Your task to perform on an android device: turn on data saver in the chrome app Image 0: 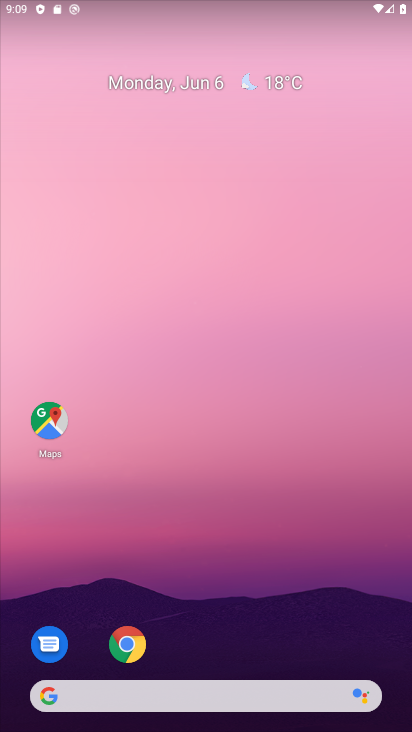
Step 0: click (285, 99)
Your task to perform on an android device: turn on data saver in the chrome app Image 1: 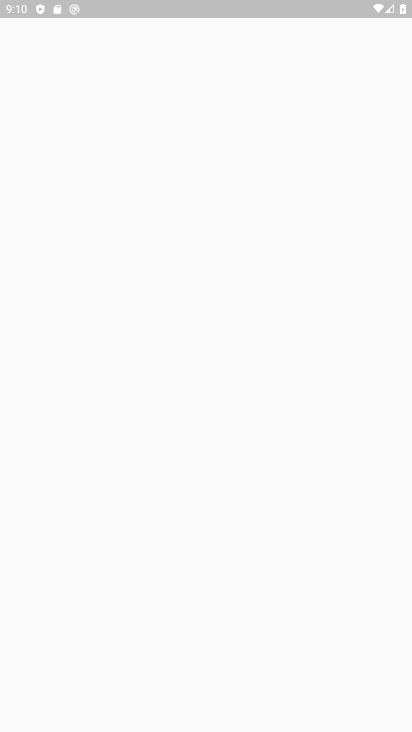
Step 1: press home button
Your task to perform on an android device: turn on data saver in the chrome app Image 2: 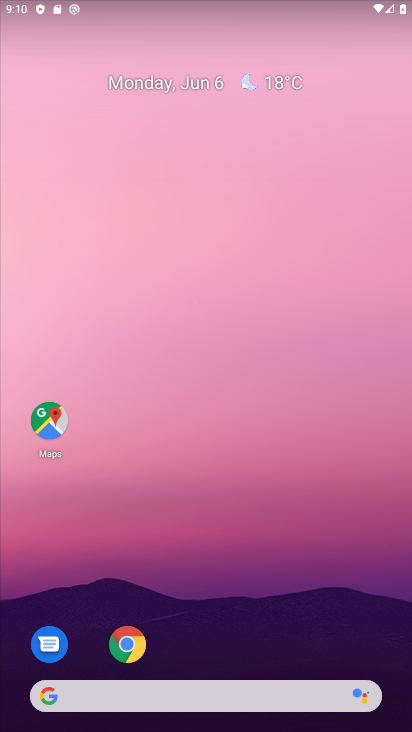
Step 2: drag from (328, 576) to (282, 199)
Your task to perform on an android device: turn on data saver in the chrome app Image 3: 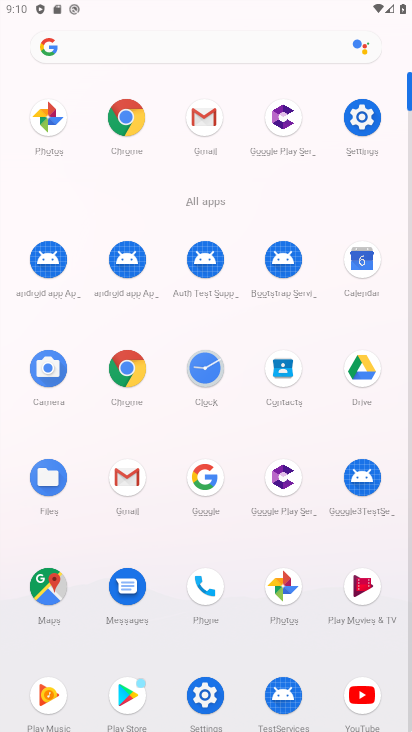
Step 3: click (137, 374)
Your task to perform on an android device: turn on data saver in the chrome app Image 4: 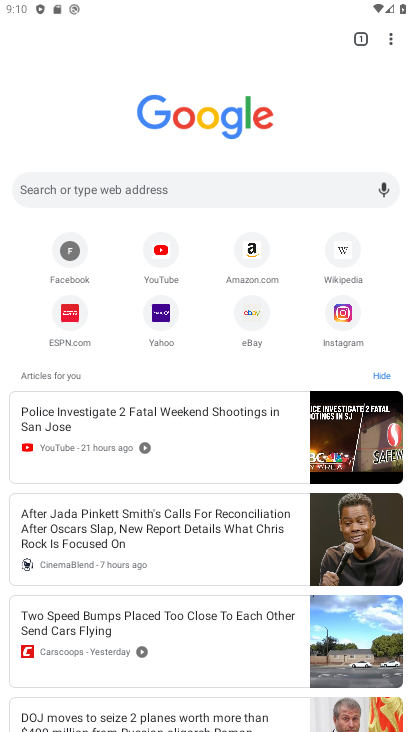
Step 4: drag from (391, 48) to (293, 332)
Your task to perform on an android device: turn on data saver in the chrome app Image 5: 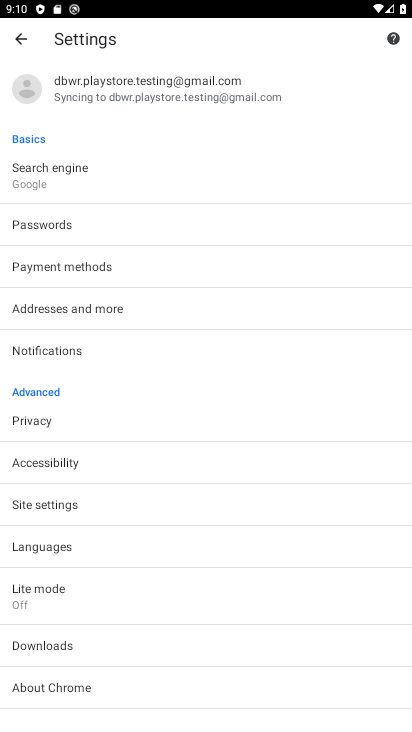
Step 5: drag from (233, 683) to (241, 310)
Your task to perform on an android device: turn on data saver in the chrome app Image 6: 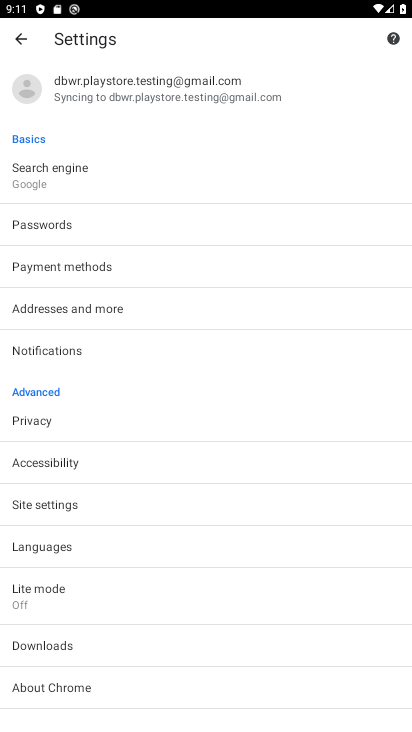
Step 6: click (139, 593)
Your task to perform on an android device: turn on data saver in the chrome app Image 7: 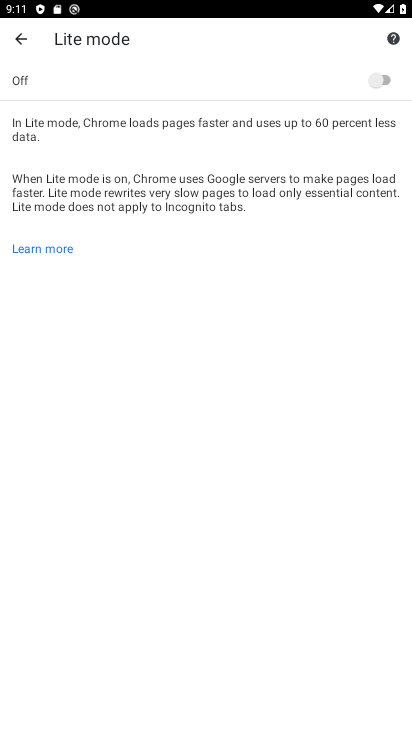
Step 7: click (386, 79)
Your task to perform on an android device: turn on data saver in the chrome app Image 8: 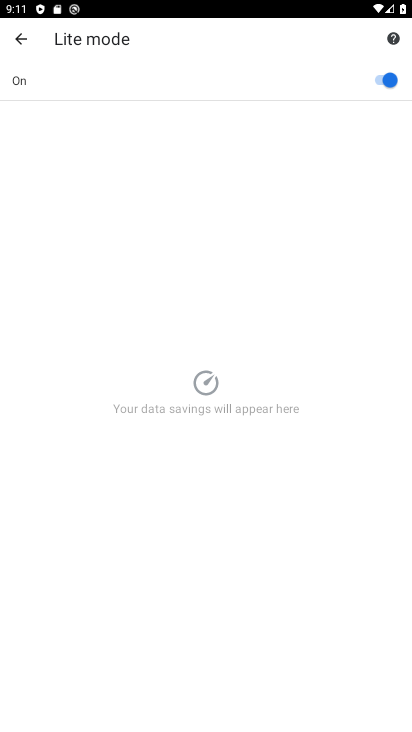
Step 8: task complete